Your task to perform on an android device: Open sound settings Image 0: 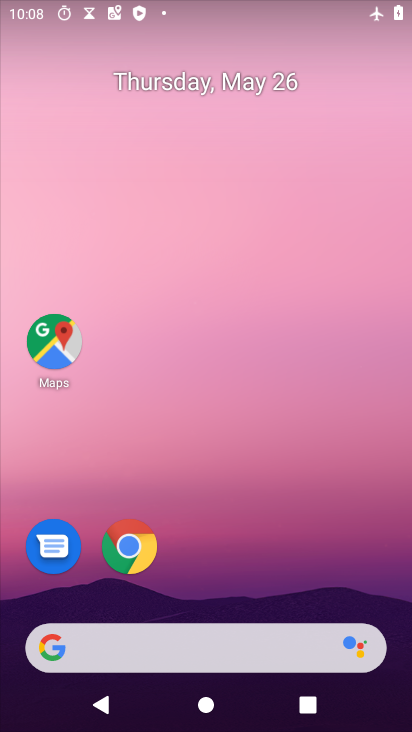
Step 0: drag from (353, 577) to (345, 81)
Your task to perform on an android device: Open sound settings Image 1: 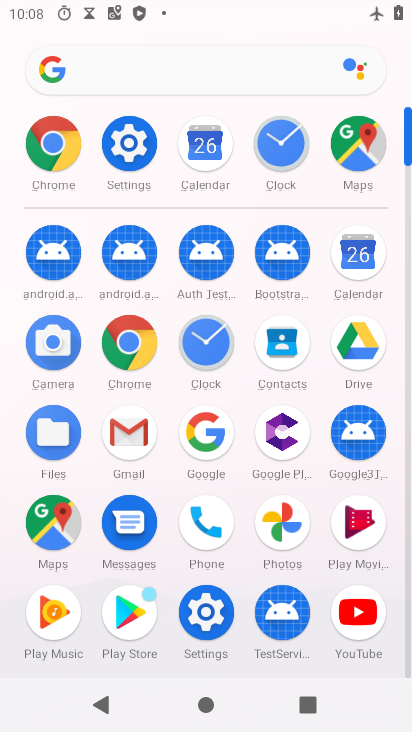
Step 1: click (226, 618)
Your task to perform on an android device: Open sound settings Image 2: 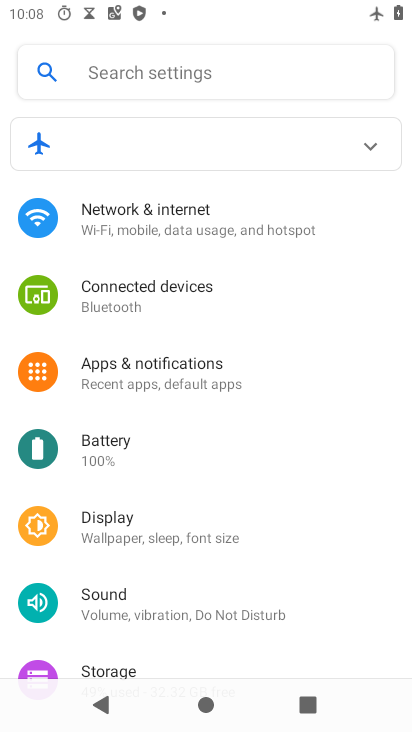
Step 2: drag from (303, 609) to (299, 332)
Your task to perform on an android device: Open sound settings Image 3: 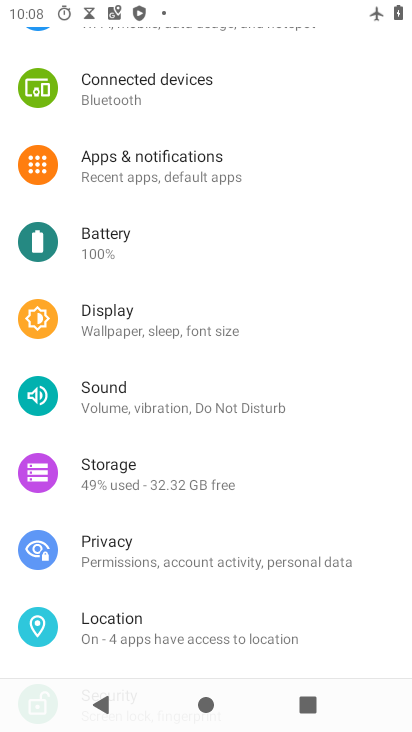
Step 3: click (153, 418)
Your task to perform on an android device: Open sound settings Image 4: 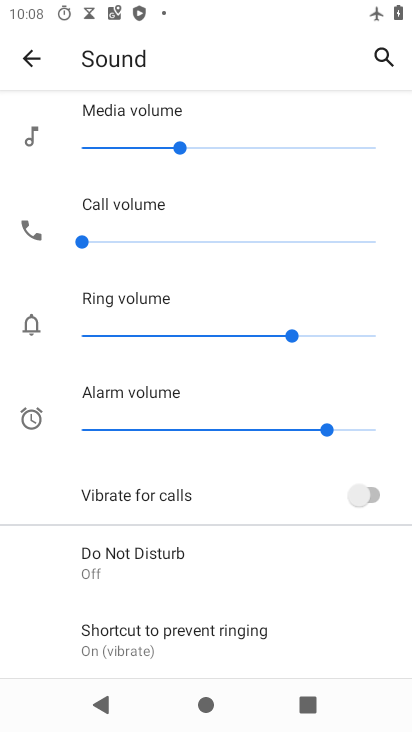
Step 4: task complete